Your task to perform on an android device: change text size in settings app Image 0: 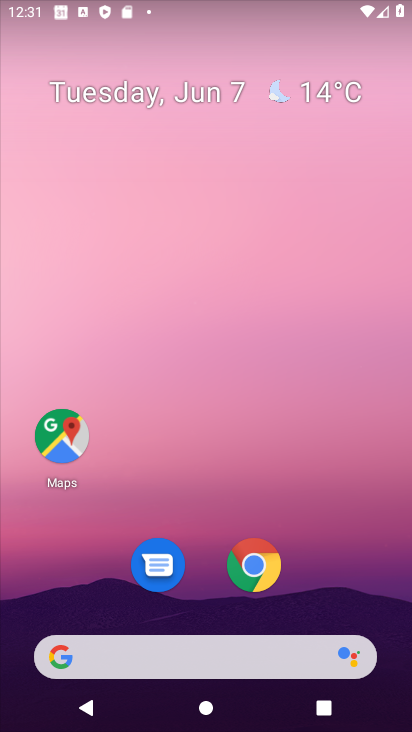
Step 0: drag from (214, 633) to (192, 65)
Your task to perform on an android device: change text size in settings app Image 1: 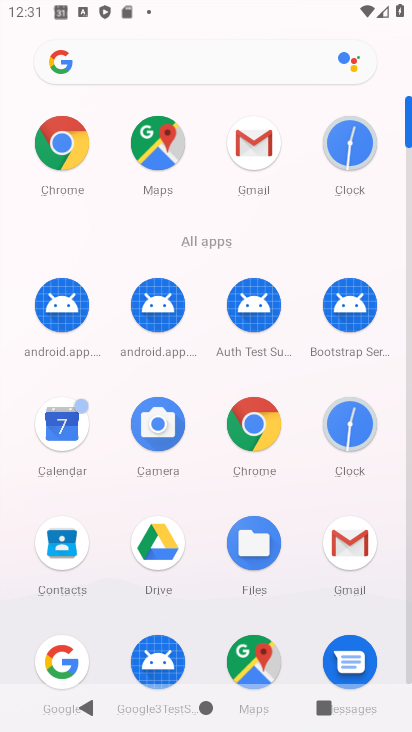
Step 1: drag from (192, 592) to (208, 262)
Your task to perform on an android device: change text size in settings app Image 2: 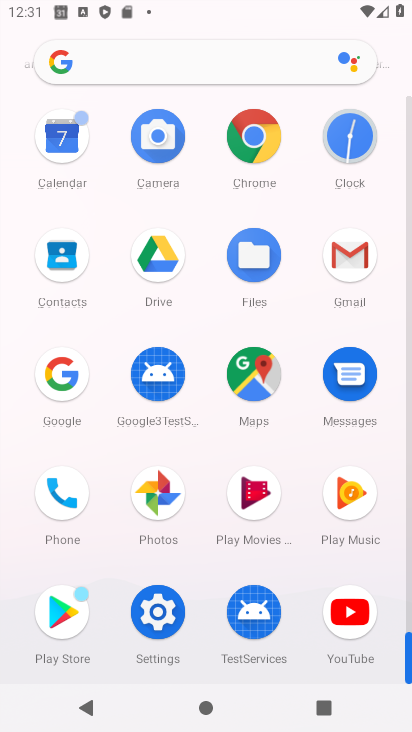
Step 2: click (163, 614)
Your task to perform on an android device: change text size in settings app Image 3: 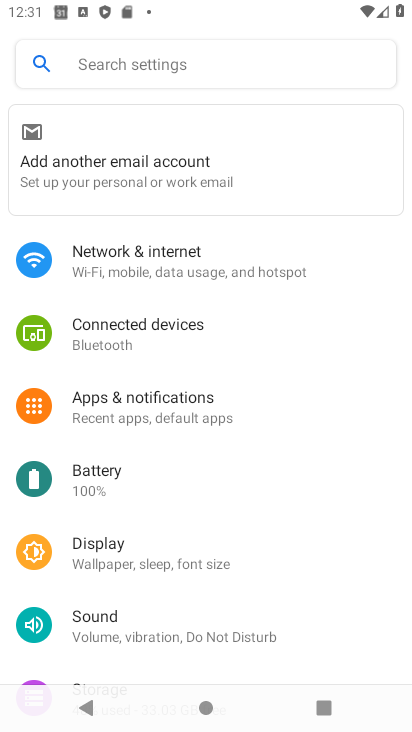
Step 3: drag from (157, 676) to (218, 297)
Your task to perform on an android device: change text size in settings app Image 4: 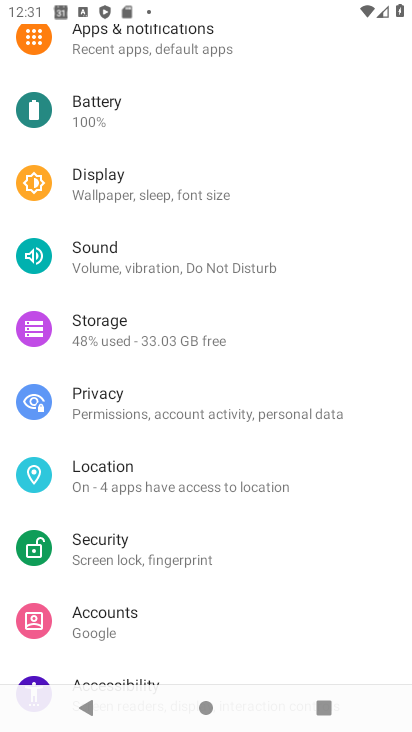
Step 4: drag from (177, 661) to (247, 409)
Your task to perform on an android device: change text size in settings app Image 5: 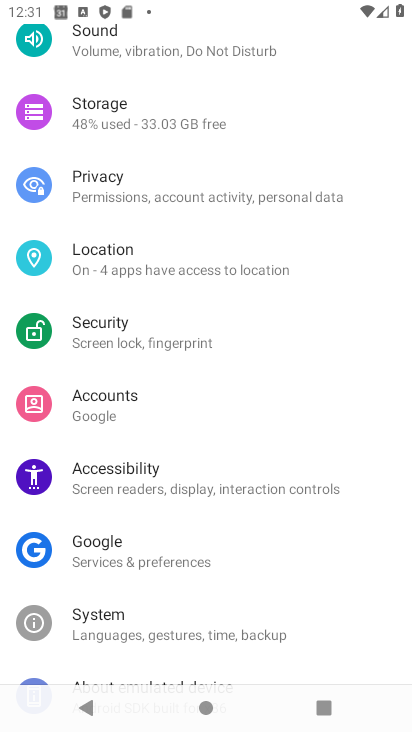
Step 5: drag from (193, 665) to (225, 469)
Your task to perform on an android device: change text size in settings app Image 6: 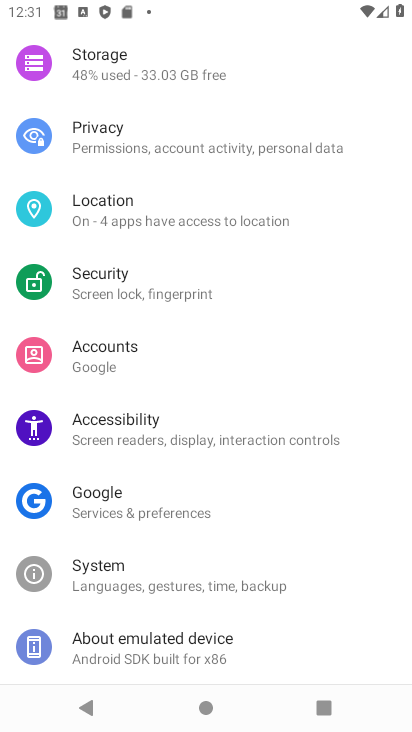
Step 6: click (145, 427)
Your task to perform on an android device: change text size in settings app Image 7: 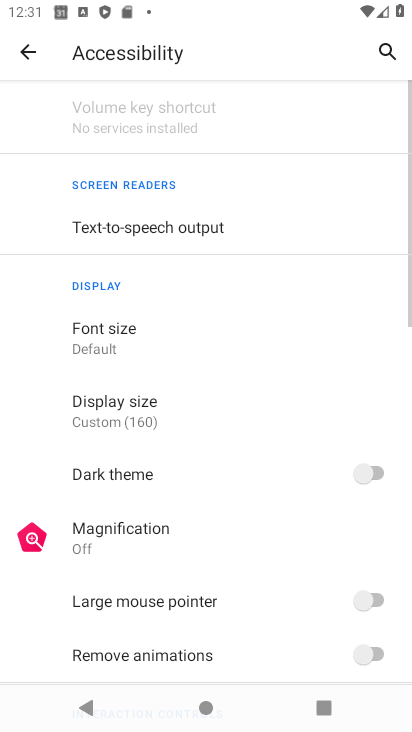
Step 7: click (163, 345)
Your task to perform on an android device: change text size in settings app Image 8: 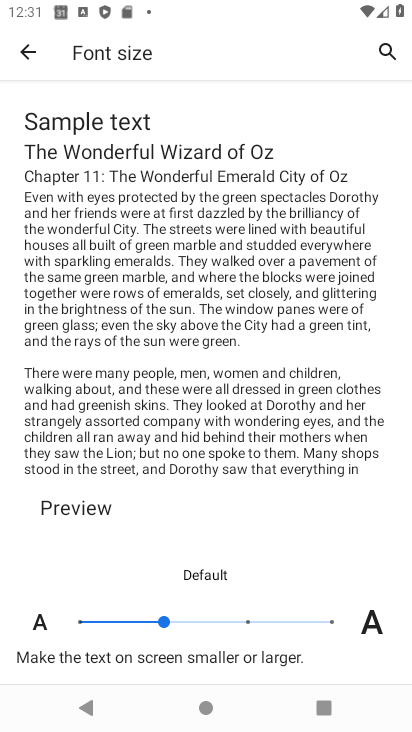
Step 8: click (254, 622)
Your task to perform on an android device: change text size in settings app Image 9: 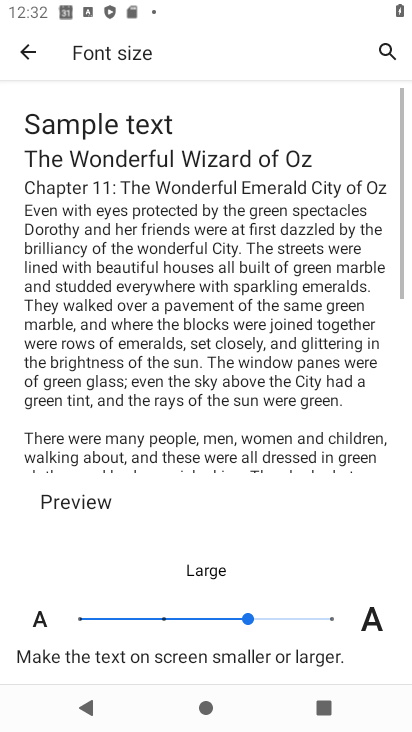
Step 9: task complete